Your task to perform on an android device: Open the Play Movies app and select the watchlist tab. Image 0: 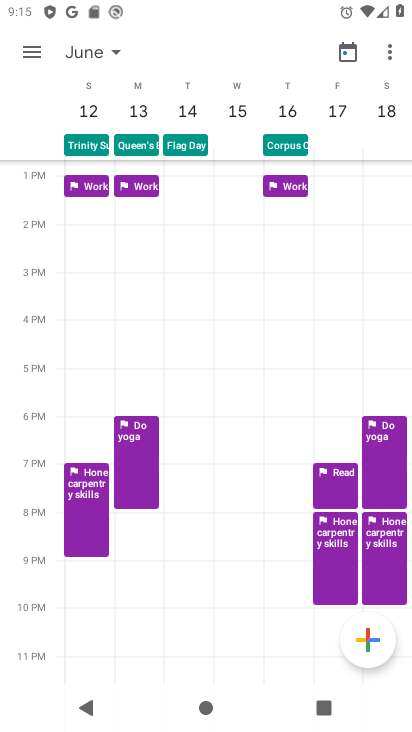
Step 0: press home button
Your task to perform on an android device: Open the Play Movies app and select the watchlist tab. Image 1: 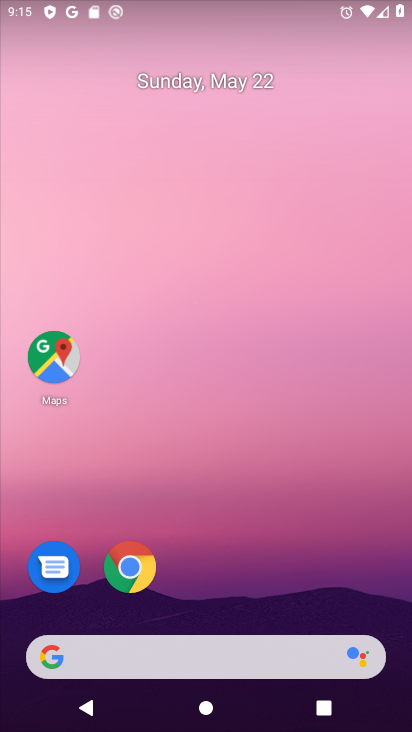
Step 1: drag from (201, 602) to (248, 8)
Your task to perform on an android device: Open the Play Movies app and select the watchlist tab. Image 2: 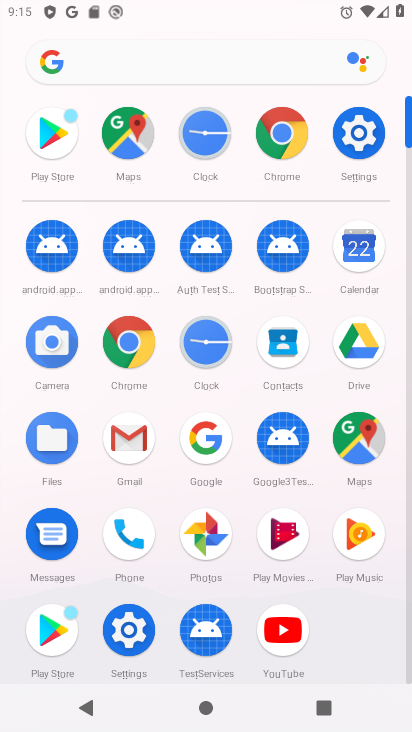
Step 2: click (284, 550)
Your task to perform on an android device: Open the Play Movies app and select the watchlist tab. Image 3: 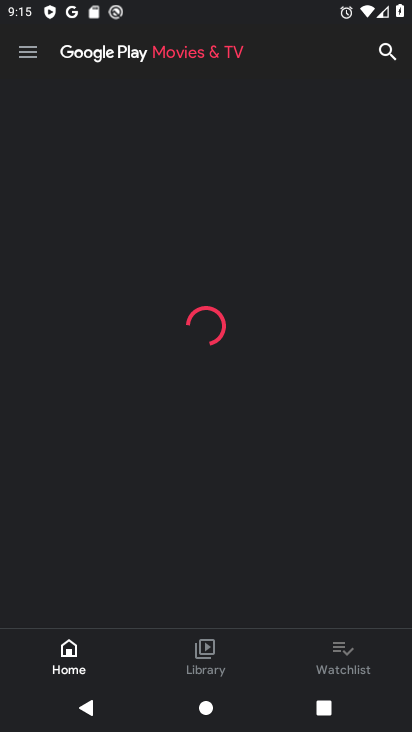
Step 3: click (343, 657)
Your task to perform on an android device: Open the Play Movies app and select the watchlist tab. Image 4: 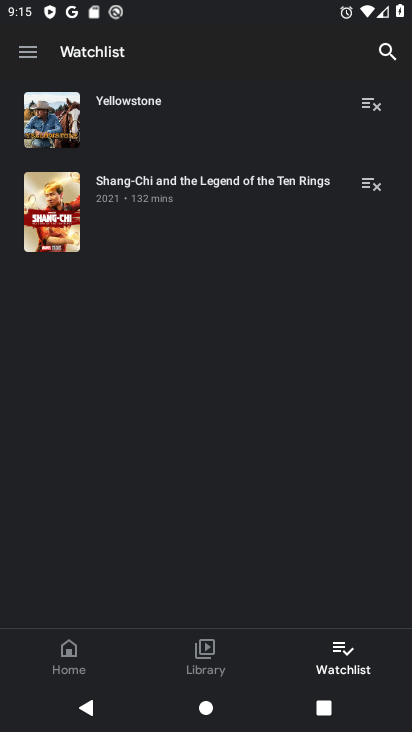
Step 4: task complete